Your task to perform on an android device: find which apps use the phone's location Image 0: 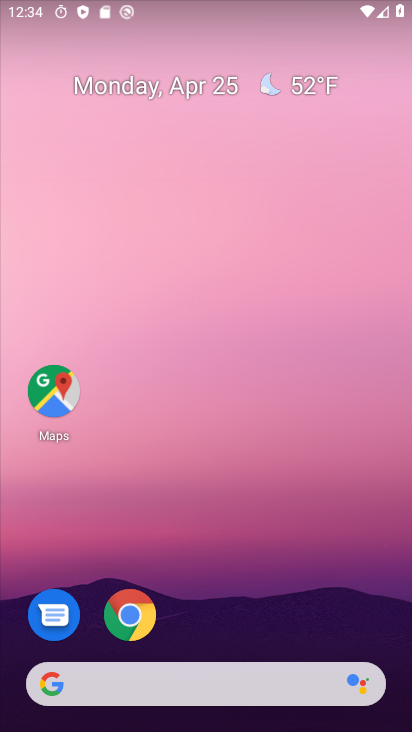
Step 0: drag from (211, 654) to (407, 71)
Your task to perform on an android device: find which apps use the phone's location Image 1: 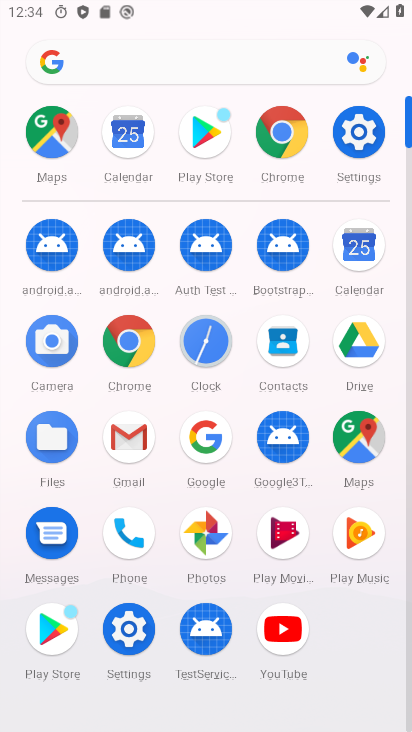
Step 1: click (359, 126)
Your task to perform on an android device: find which apps use the phone's location Image 2: 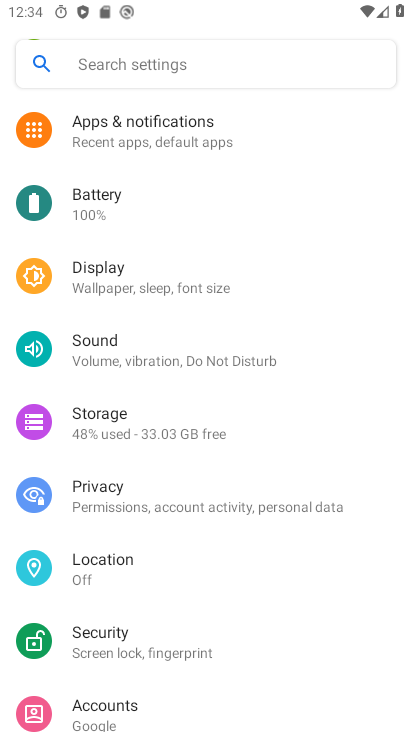
Step 2: click (110, 564)
Your task to perform on an android device: find which apps use the phone's location Image 3: 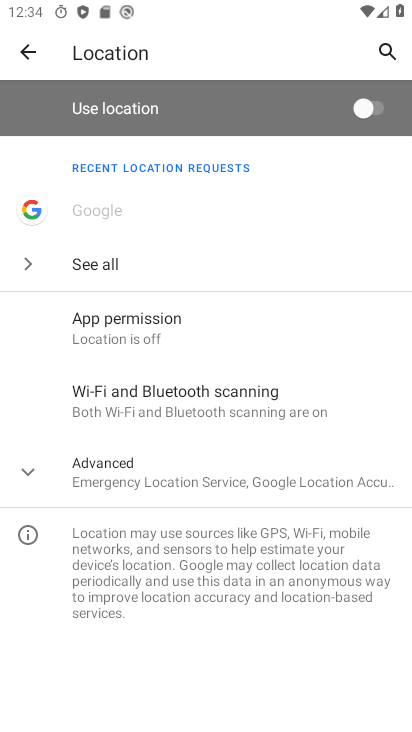
Step 3: click (131, 488)
Your task to perform on an android device: find which apps use the phone's location Image 4: 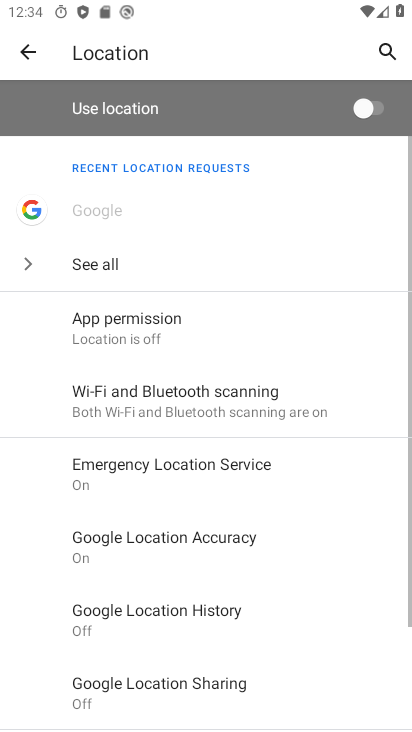
Step 4: click (116, 339)
Your task to perform on an android device: find which apps use the phone's location Image 5: 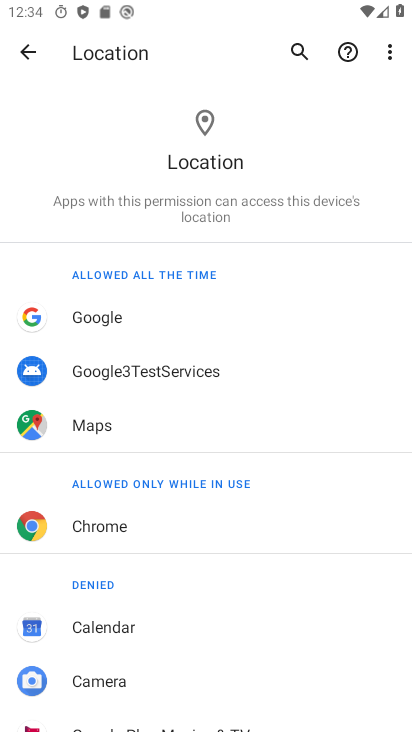
Step 5: task complete